Your task to perform on an android device: uninstall "Expedia: Hotels, Flights & Car" Image 0: 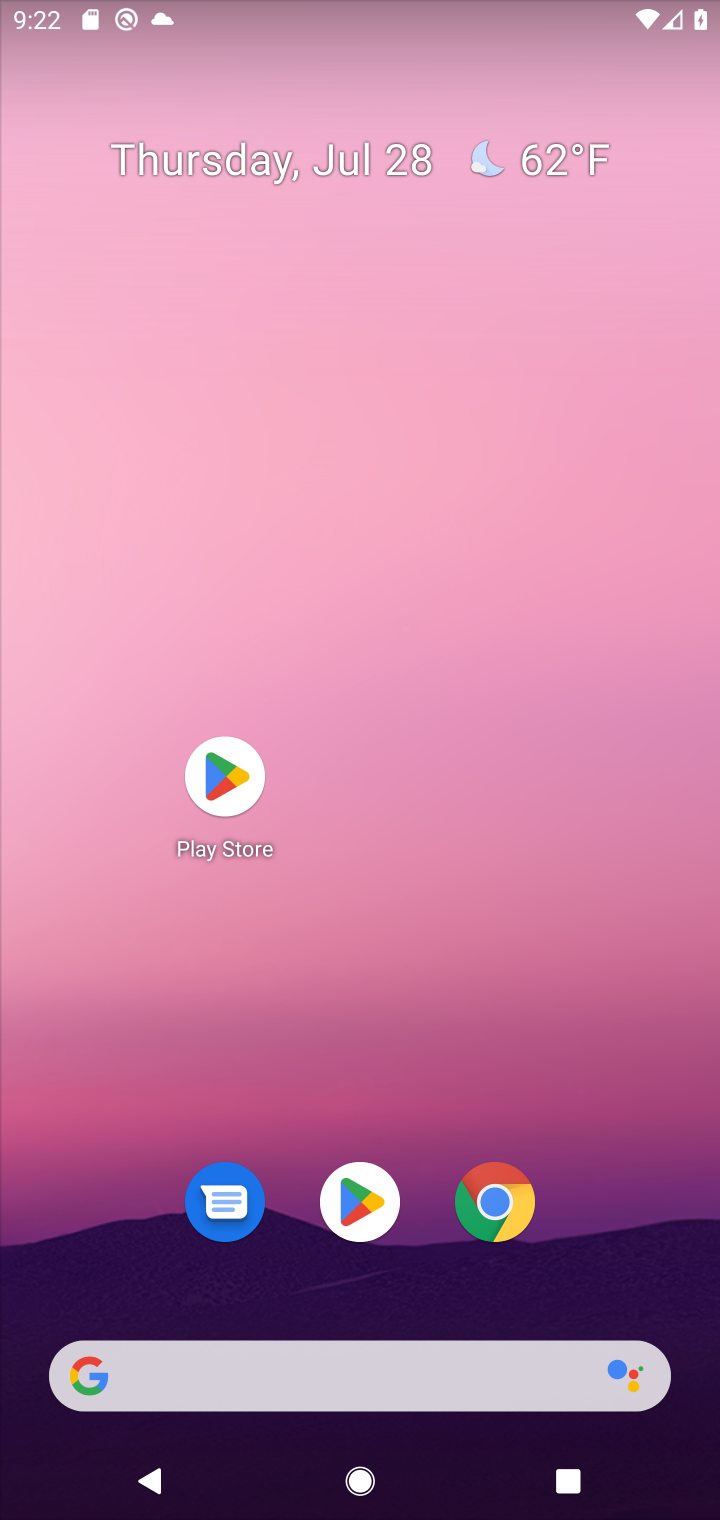
Step 0: click (363, 1186)
Your task to perform on an android device: uninstall "Expedia: Hotels, Flights & Car" Image 1: 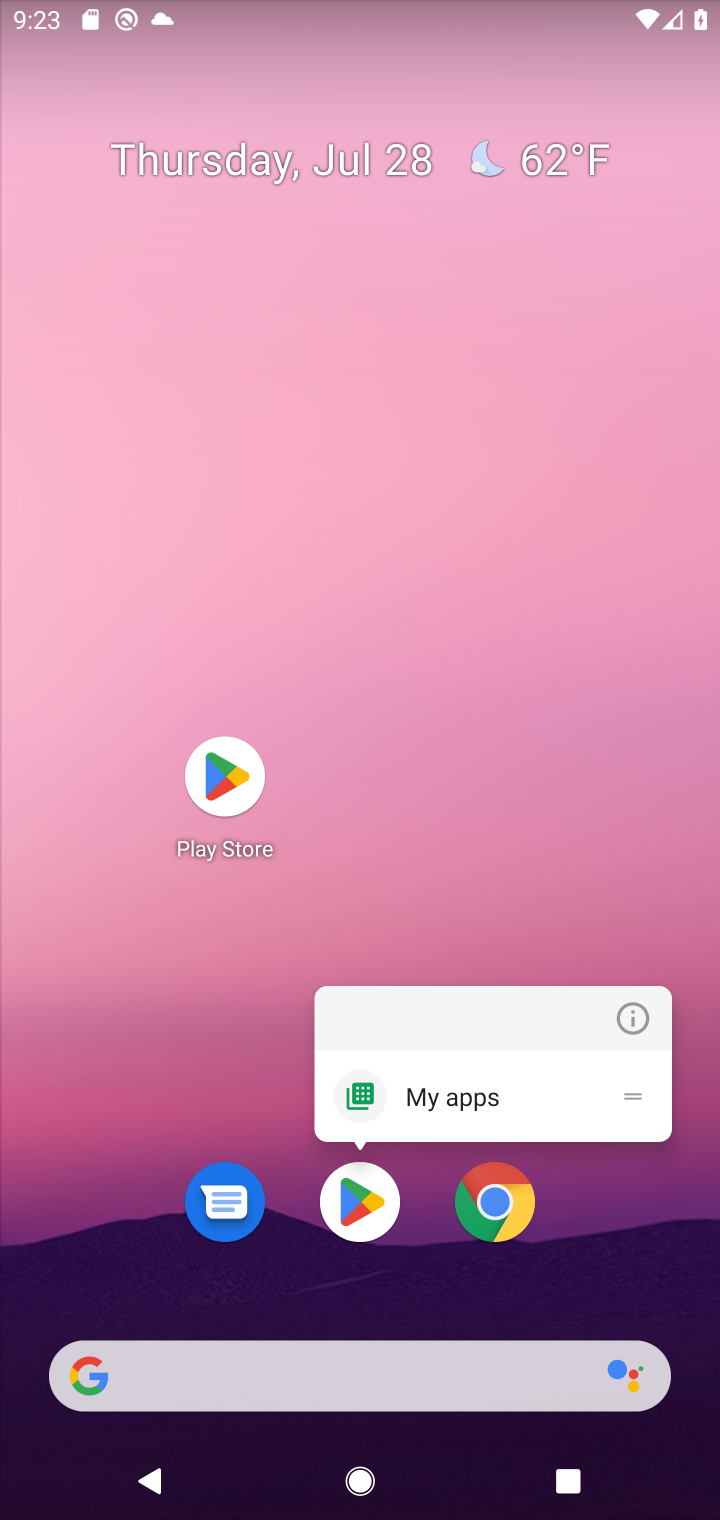
Step 1: click (353, 1204)
Your task to perform on an android device: uninstall "Expedia: Hotels, Flights & Car" Image 2: 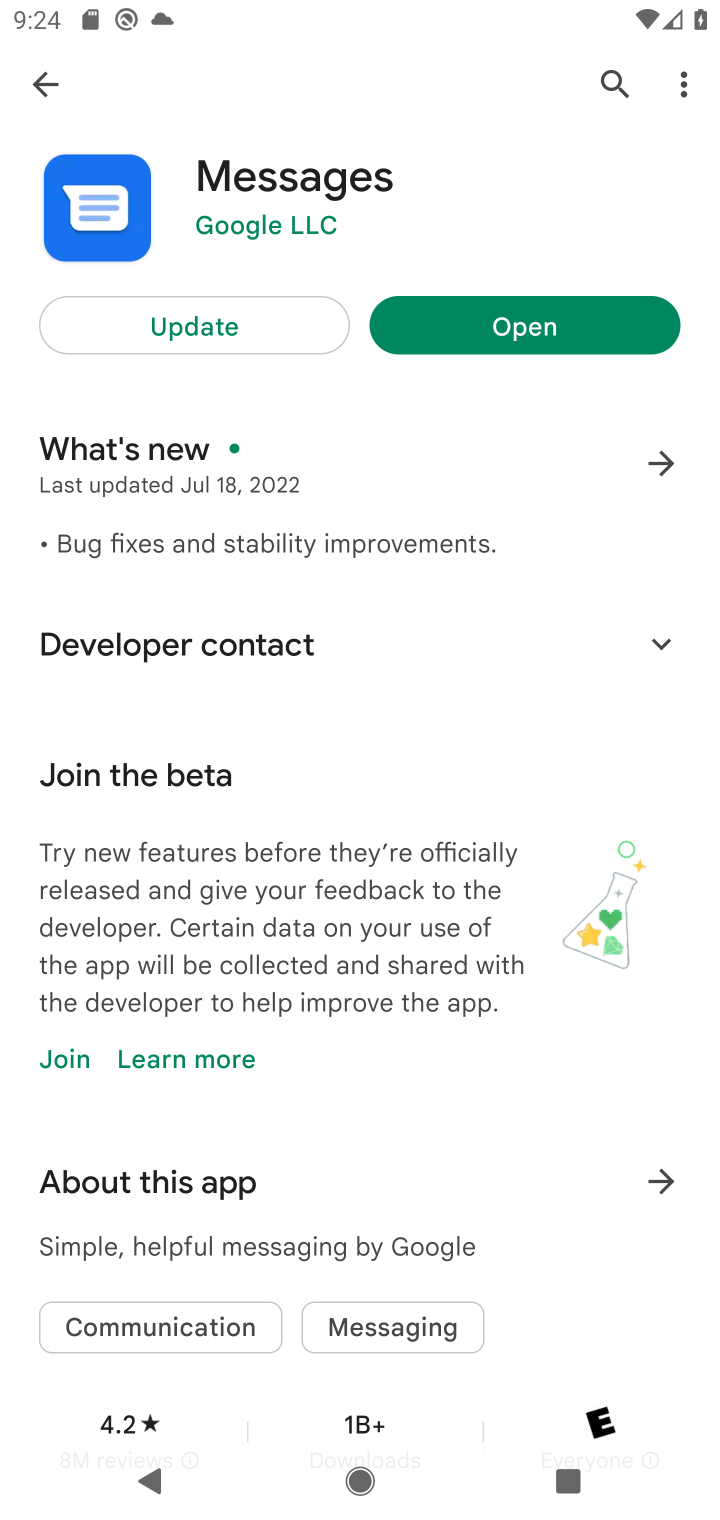
Step 2: click (31, 82)
Your task to perform on an android device: uninstall "Expedia: Hotels, Flights & Car" Image 3: 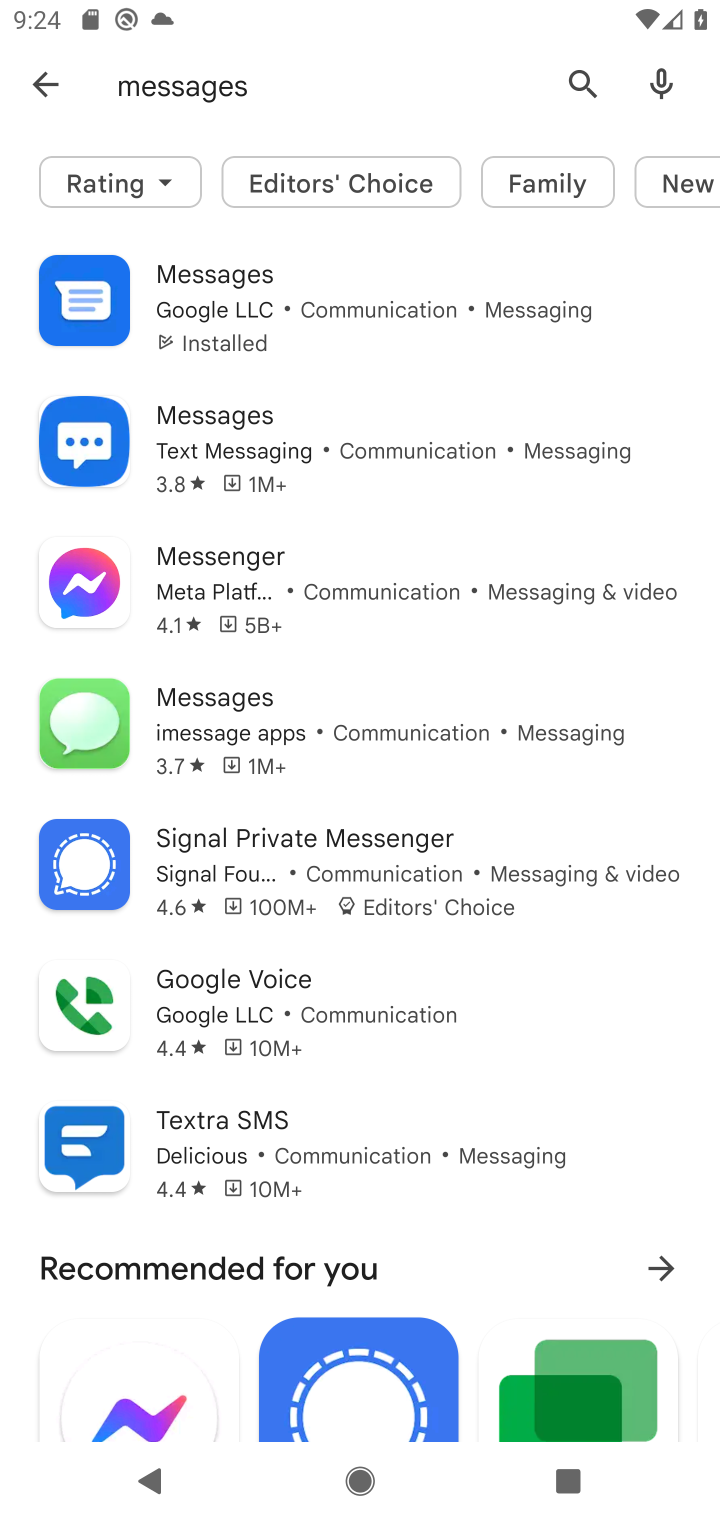
Step 3: click (482, 80)
Your task to perform on an android device: uninstall "Expedia: Hotels, Flights & Car" Image 4: 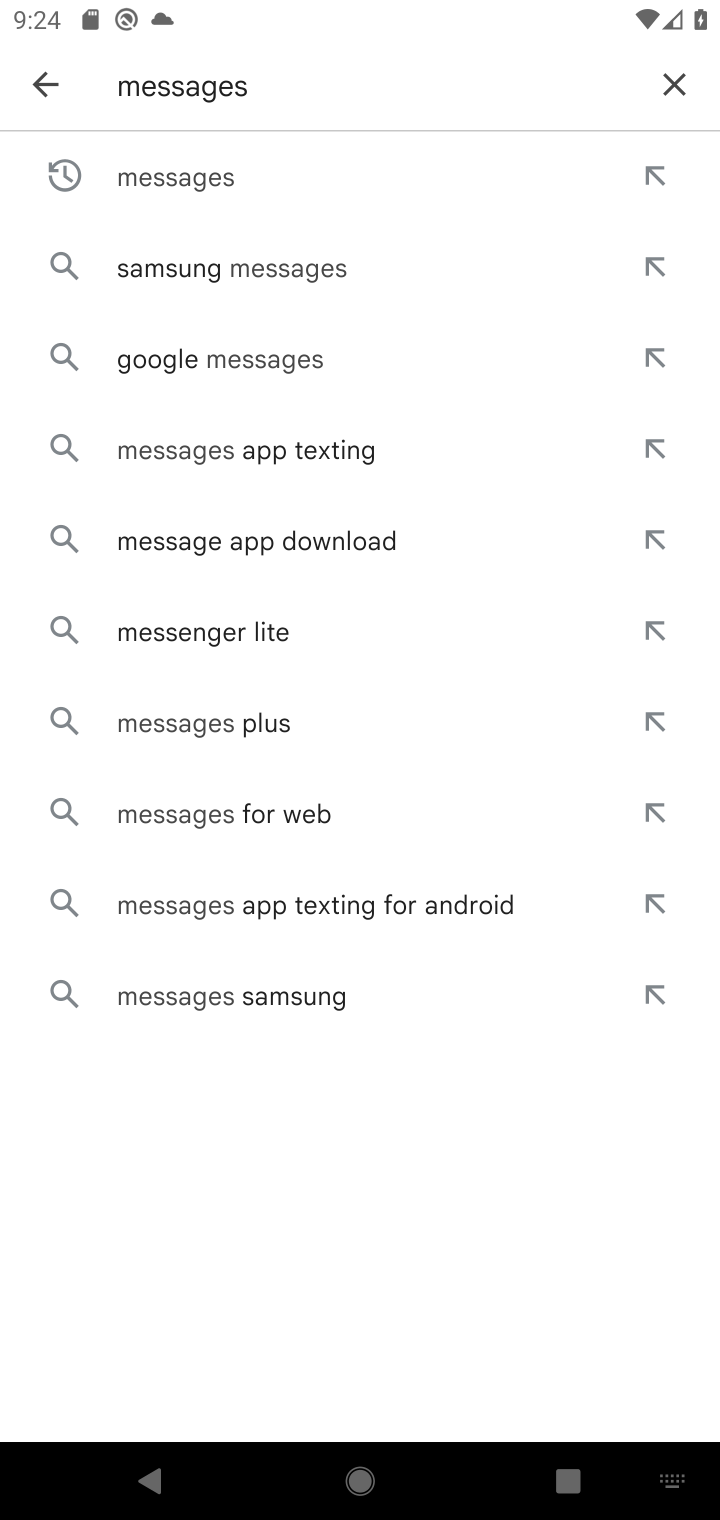
Step 4: click (675, 68)
Your task to perform on an android device: uninstall "Expedia: Hotels, Flights & Car" Image 5: 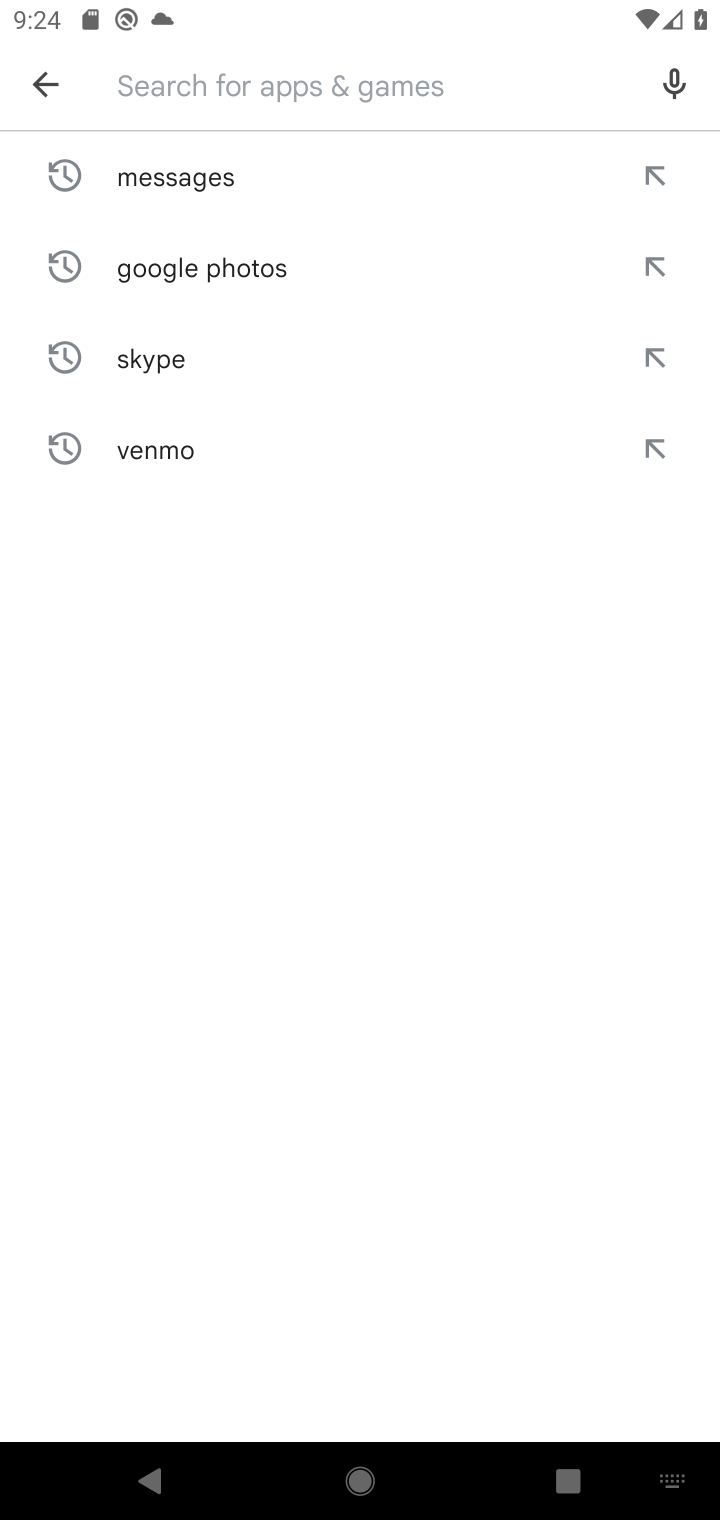
Step 5: type "expedia :hotels, flights"
Your task to perform on an android device: uninstall "Expedia: Hotels, Flights & Car" Image 6: 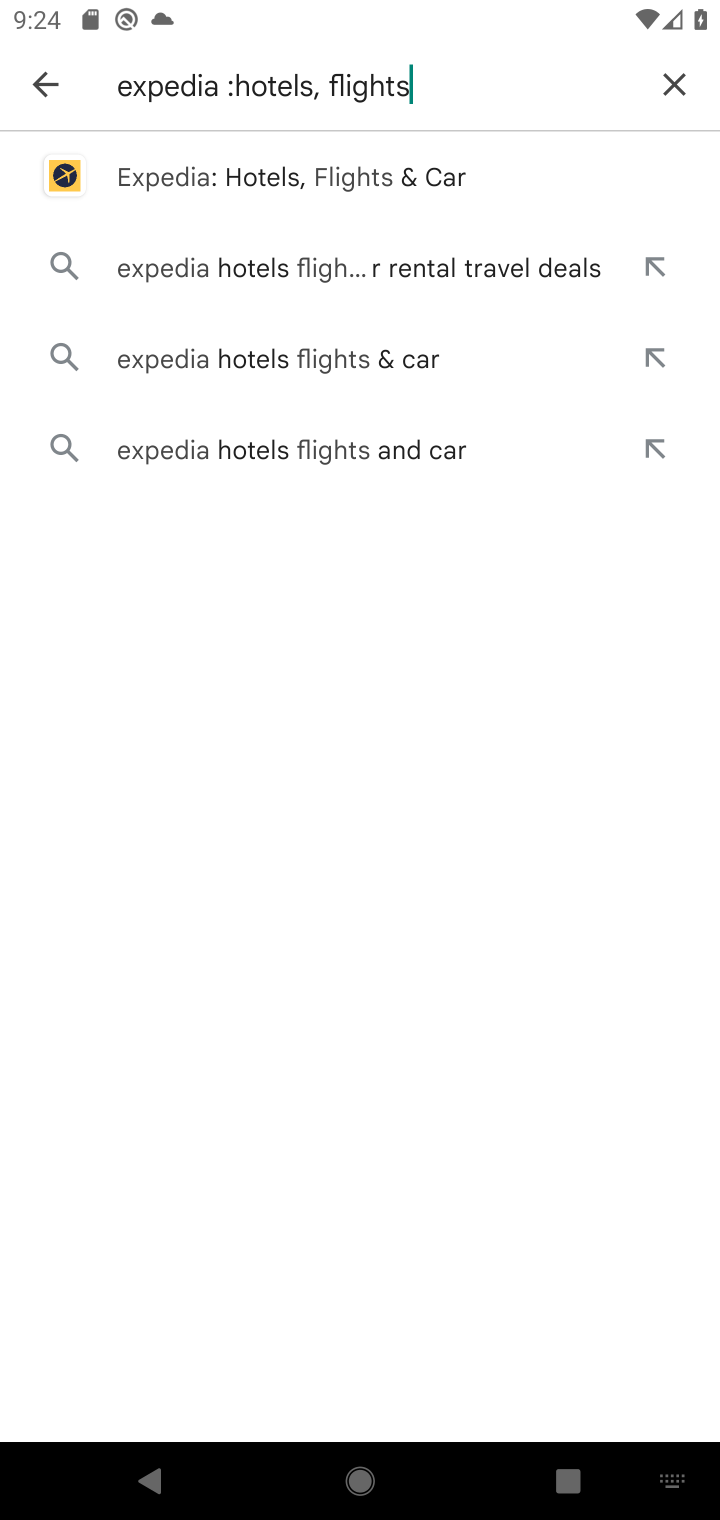
Step 6: click (299, 178)
Your task to perform on an android device: uninstall "Expedia: Hotels, Flights & Car" Image 7: 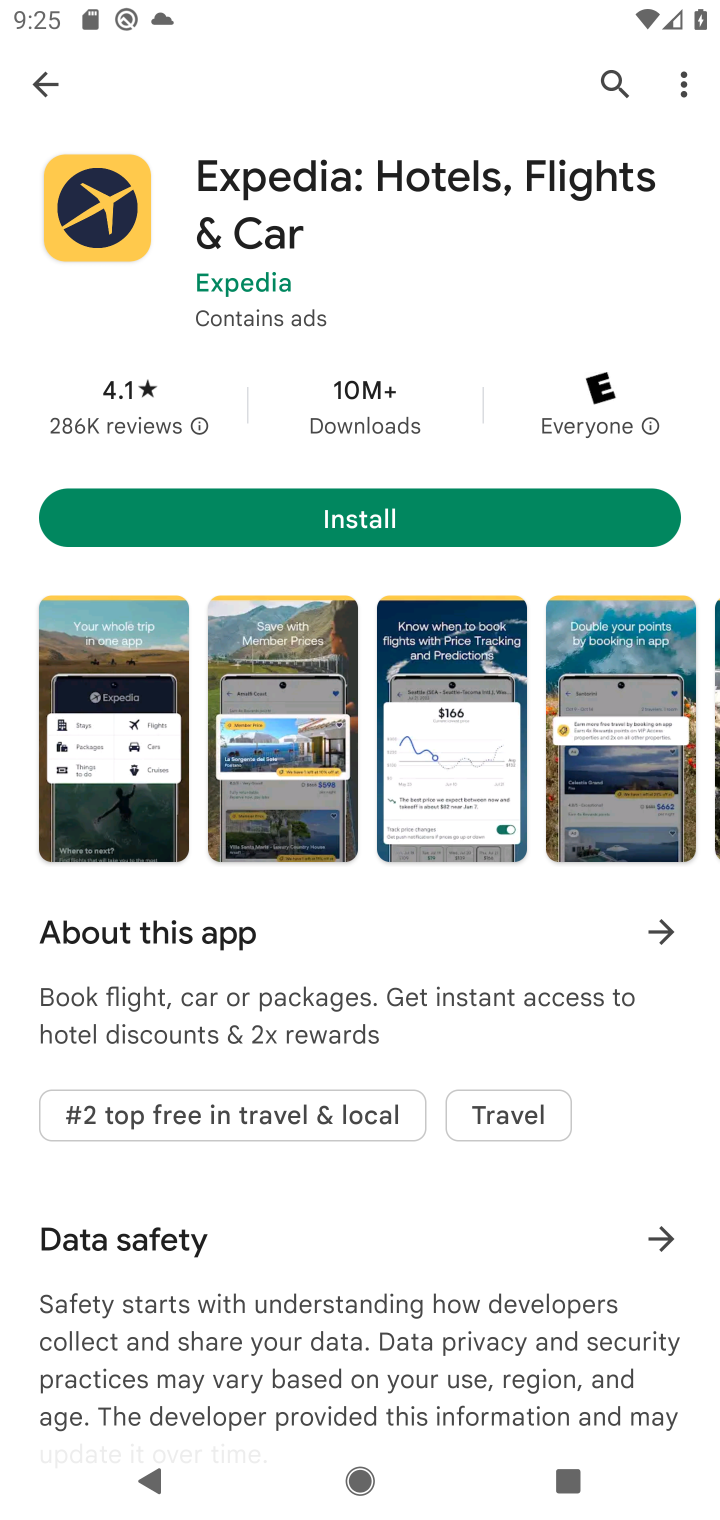
Step 7: task complete